Your task to perform on an android device: Open calendar and show me the first week of next month Image 0: 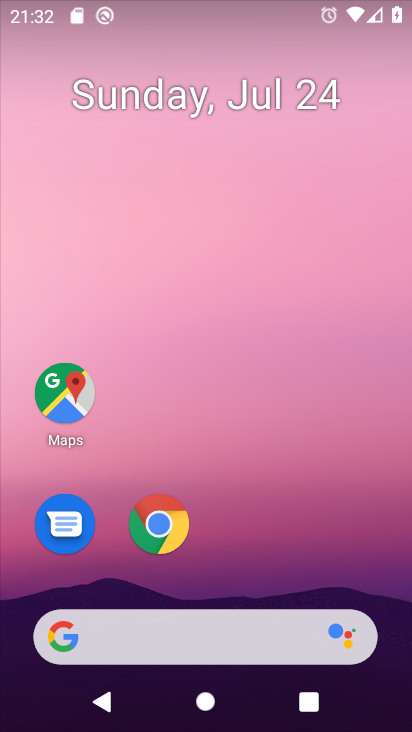
Step 0: drag from (260, 522) to (291, 15)
Your task to perform on an android device: Open calendar and show me the first week of next month Image 1: 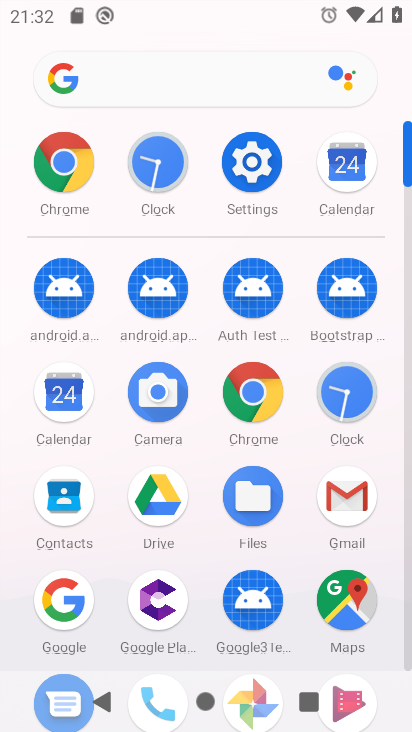
Step 1: click (340, 162)
Your task to perform on an android device: Open calendar and show me the first week of next month Image 2: 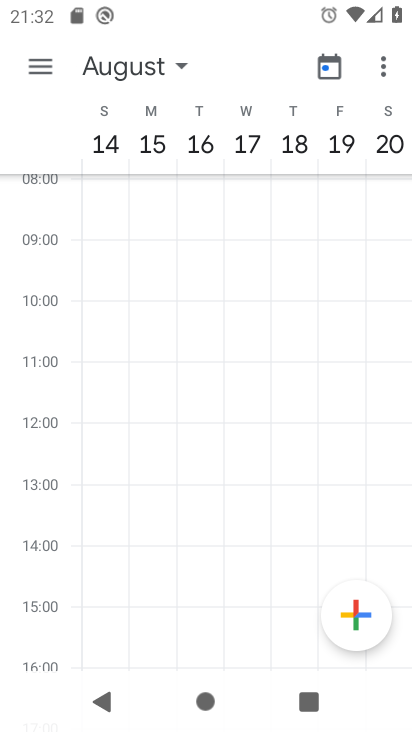
Step 2: task complete